Your task to perform on an android device: Set an alarm for 4pm Image 0: 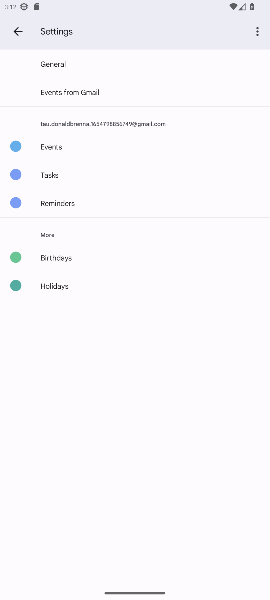
Step 0: press home button
Your task to perform on an android device: Set an alarm for 4pm Image 1: 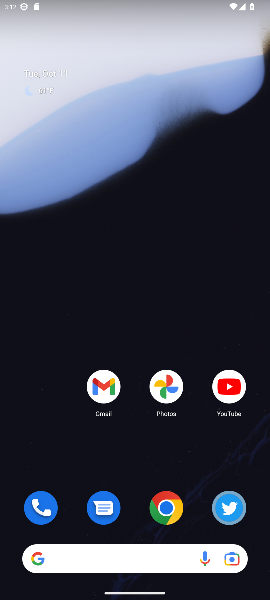
Step 1: drag from (205, 452) to (154, 264)
Your task to perform on an android device: Set an alarm for 4pm Image 2: 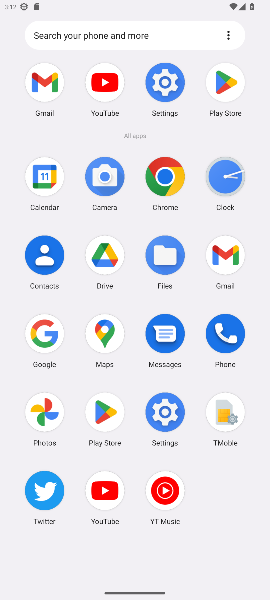
Step 2: click (232, 179)
Your task to perform on an android device: Set an alarm for 4pm Image 3: 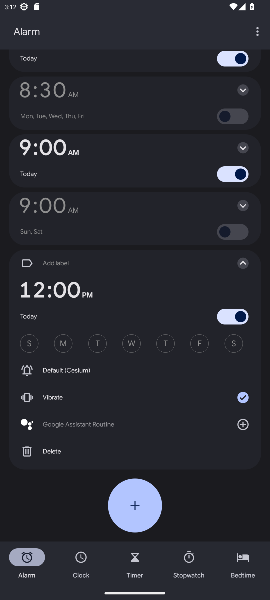
Step 3: click (136, 499)
Your task to perform on an android device: Set an alarm for 4pm Image 4: 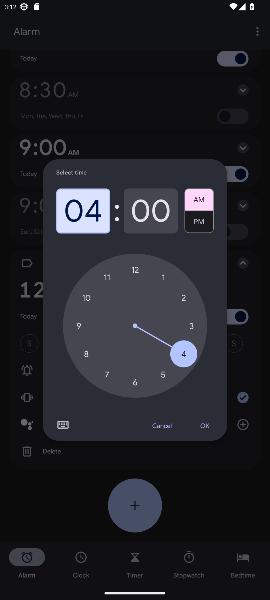
Step 4: click (196, 226)
Your task to perform on an android device: Set an alarm for 4pm Image 5: 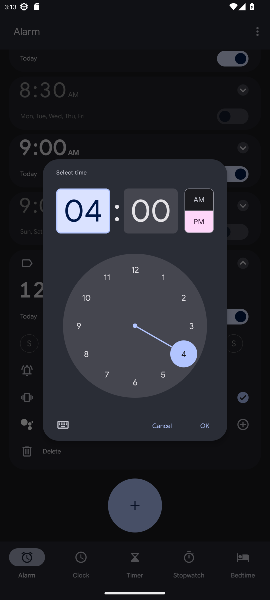
Step 5: click (209, 425)
Your task to perform on an android device: Set an alarm for 4pm Image 6: 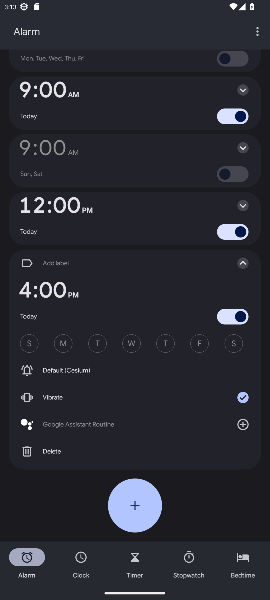
Step 6: task complete